Your task to perform on an android device: What's on my calendar today? Image 0: 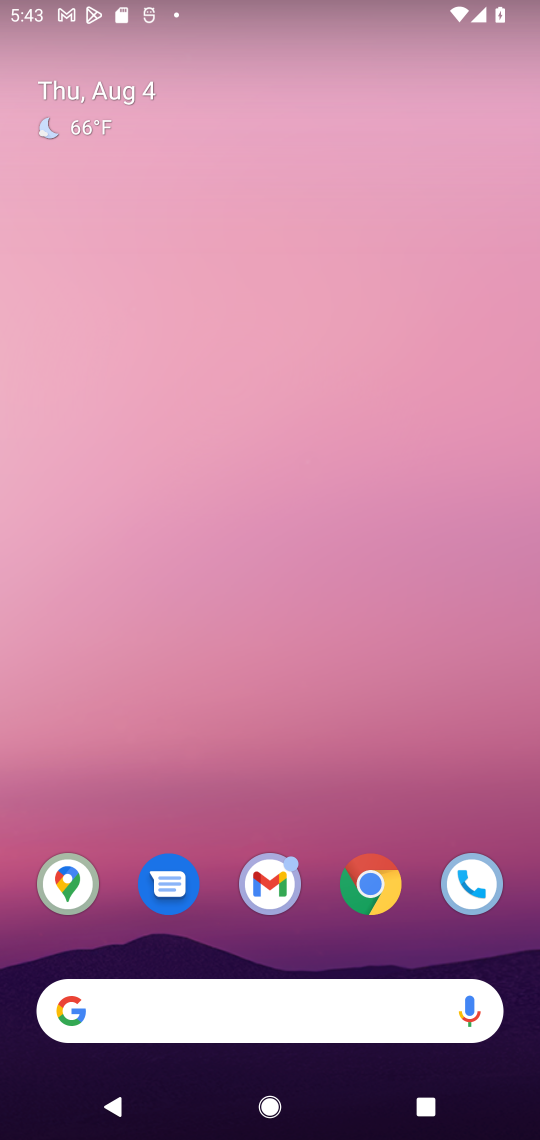
Step 0: drag from (226, 948) to (313, 184)
Your task to perform on an android device: What's on my calendar today? Image 1: 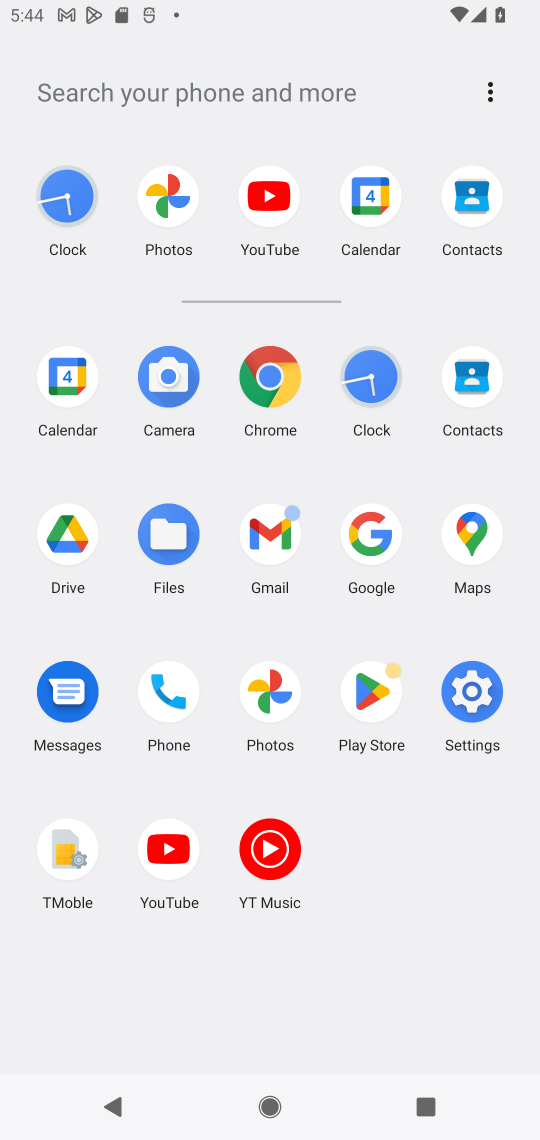
Step 1: click (383, 236)
Your task to perform on an android device: What's on my calendar today? Image 2: 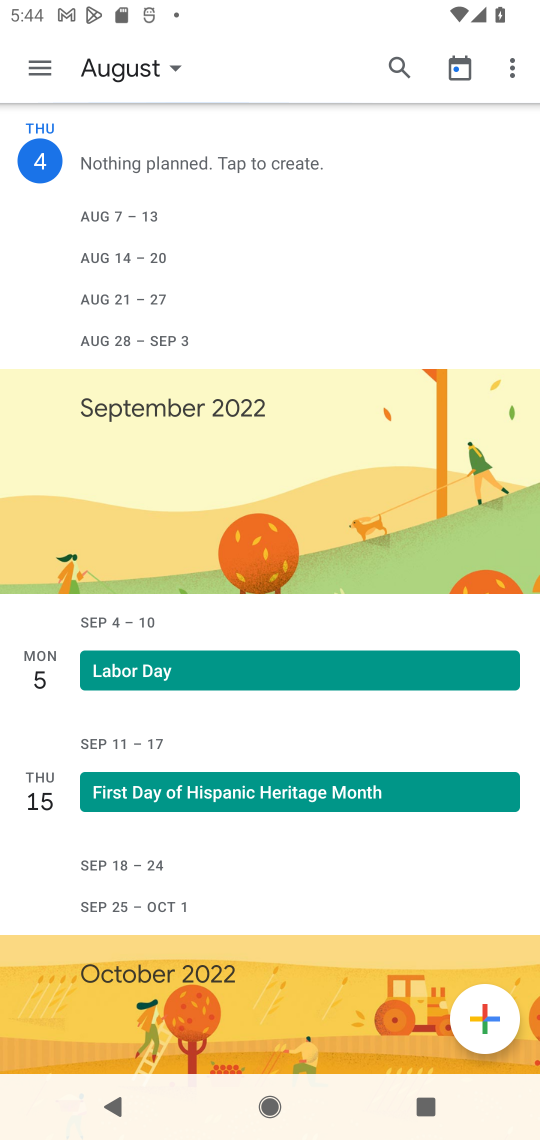
Step 2: task complete